Your task to perform on an android device: Open Youtube and go to the subscriptions tab Image 0: 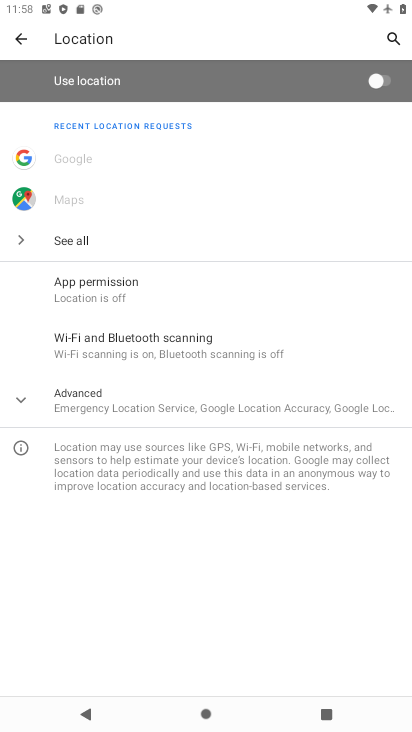
Step 0: press home button
Your task to perform on an android device: Open Youtube and go to the subscriptions tab Image 1: 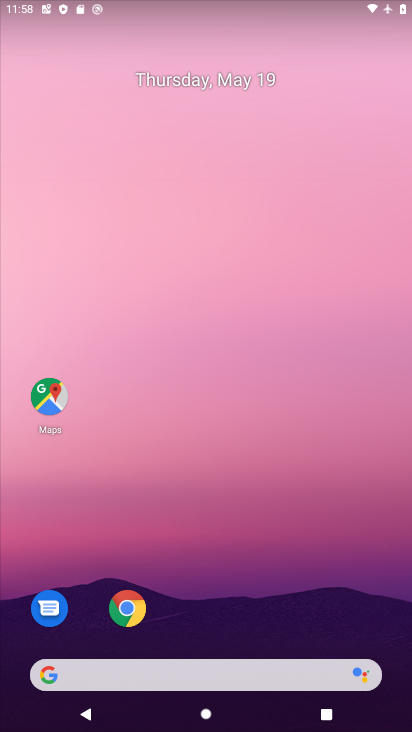
Step 1: drag from (348, 612) to (365, 251)
Your task to perform on an android device: Open Youtube and go to the subscriptions tab Image 2: 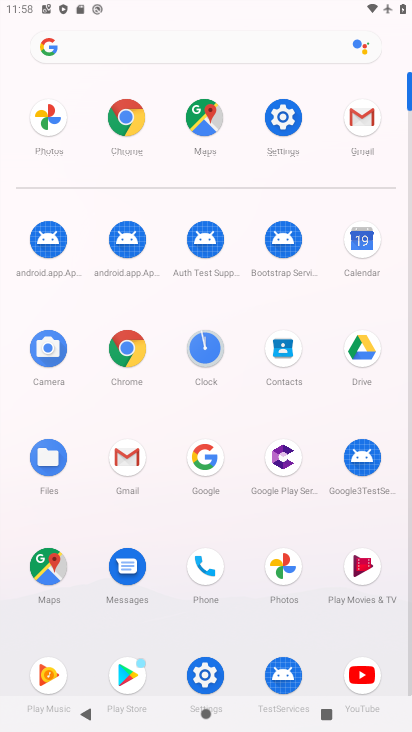
Step 2: drag from (314, 634) to (311, 524)
Your task to perform on an android device: Open Youtube and go to the subscriptions tab Image 3: 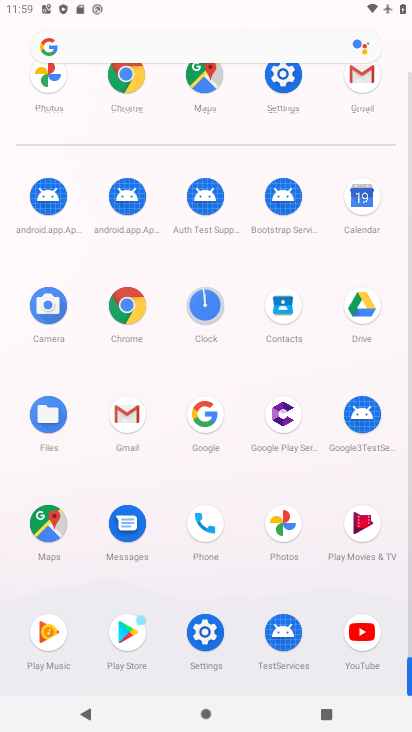
Step 3: click (365, 636)
Your task to perform on an android device: Open Youtube and go to the subscriptions tab Image 4: 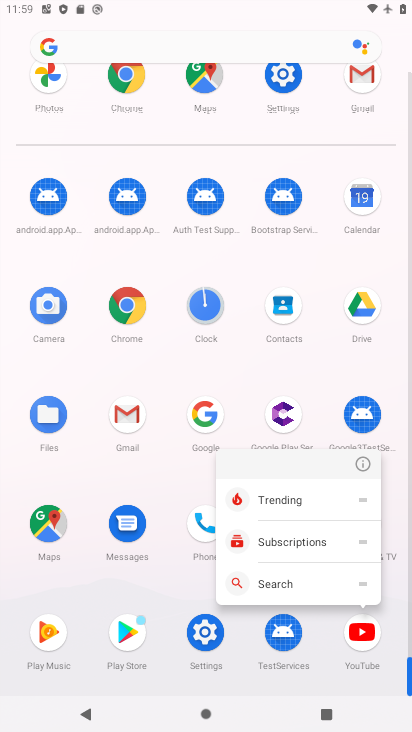
Step 4: click (365, 636)
Your task to perform on an android device: Open Youtube and go to the subscriptions tab Image 5: 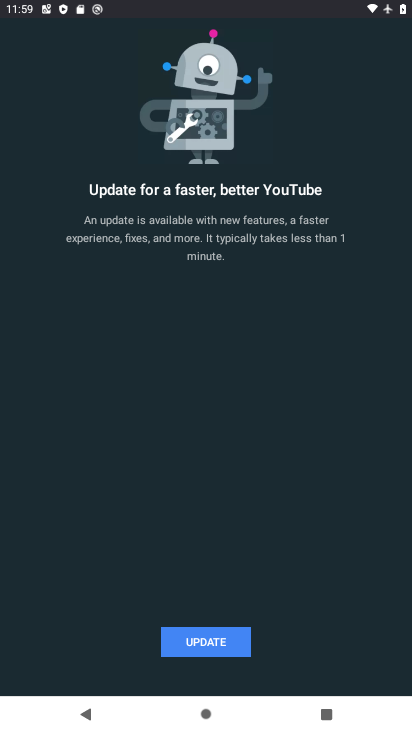
Step 5: click (241, 658)
Your task to perform on an android device: Open Youtube and go to the subscriptions tab Image 6: 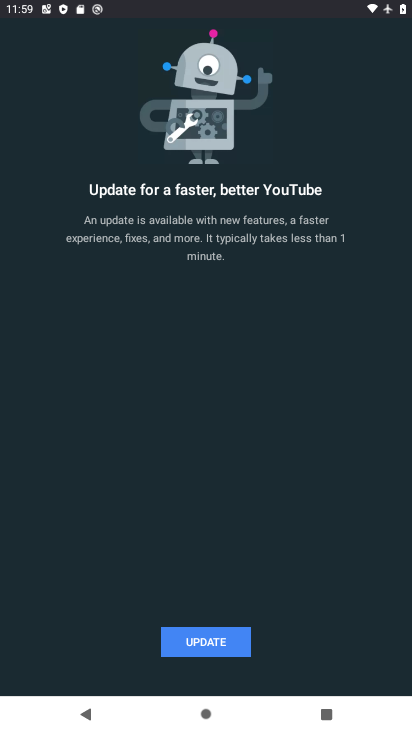
Step 6: click (229, 652)
Your task to perform on an android device: Open Youtube and go to the subscriptions tab Image 7: 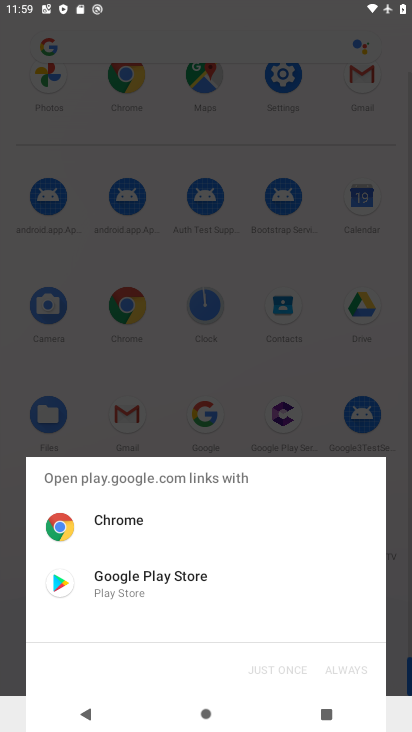
Step 7: click (127, 574)
Your task to perform on an android device: Open Youtube and go to the subscriptions tab Image 8: 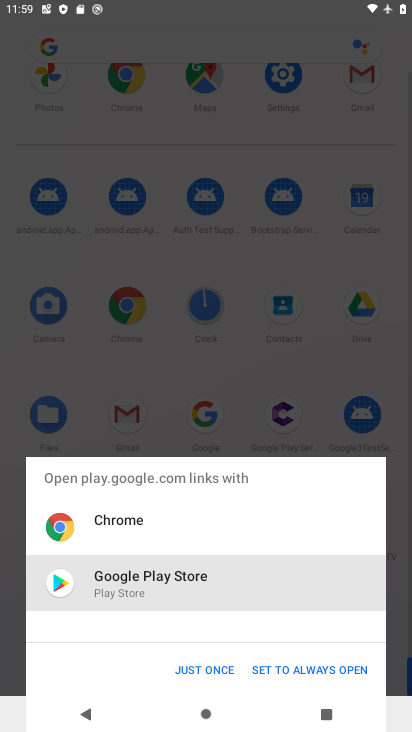
Step 8: click (195, 664)
Your task to perform on an android device: Open Youtube and go to the subscriptions tab Image 9: 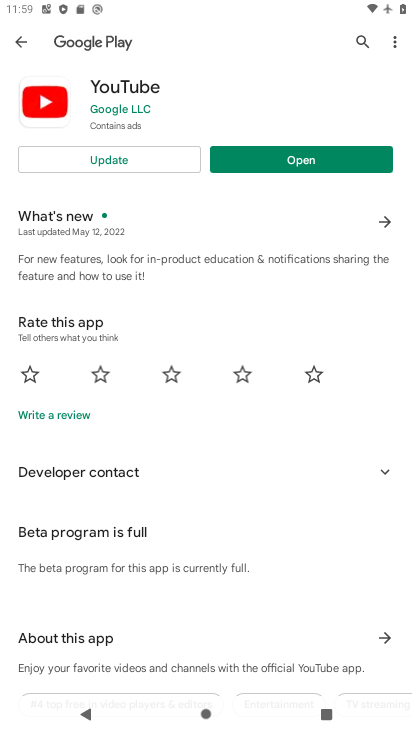
Step 9: click (149, 160)
Your task to perform on an android device: Open Youtube and go to the subscriptions tab Image 10: 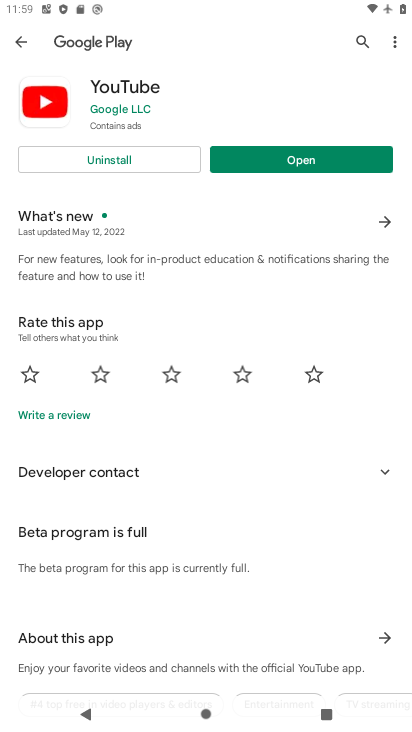
Step 10: click (276, 168)
Your task to perform on an android device: Open Youtube and go to the subscriptions tab Image 11: 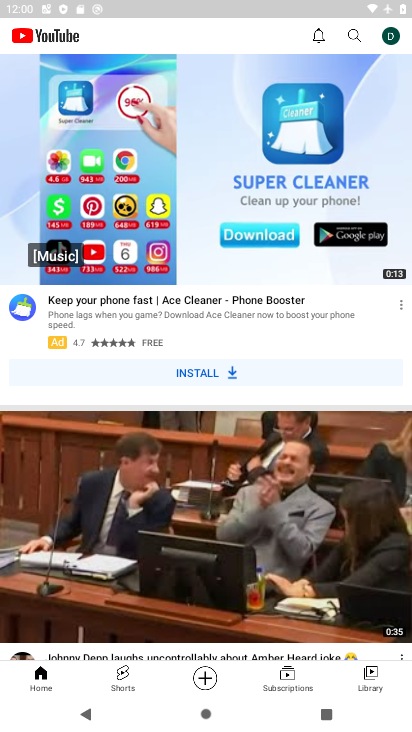
Step 11: drag from (132, 296) to (285, 678)
Your task to perform on an android device: Open Youtube and go to the subscriptions tab Image 12: 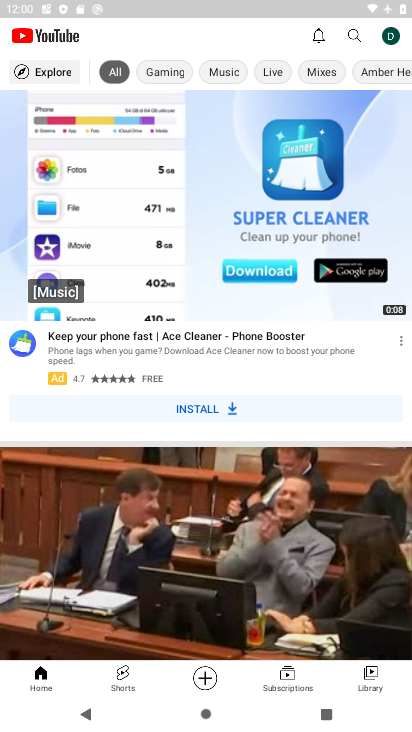
Step 12: click (285, 680)
Your task to perform on an android device: Open Youtube and go to the subscriptions tab Image 13: 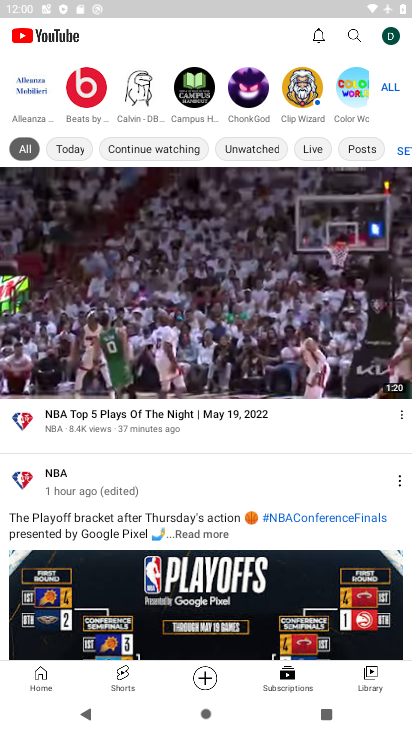
Step 13: task complete